Your task to perform on an android device: Go to Amazon Image 0: 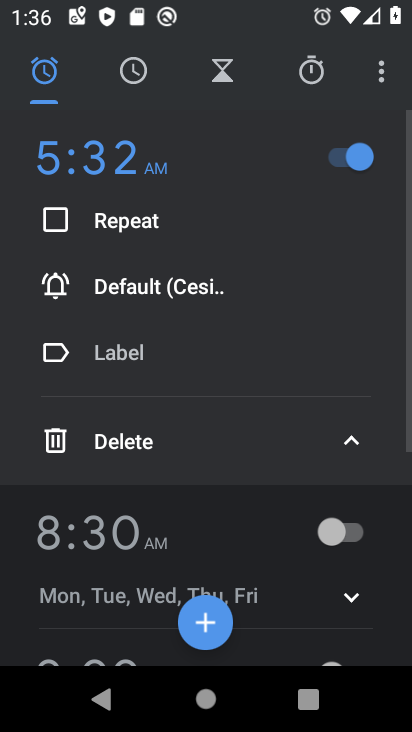
Step 0: press home button
Your task to perform on an android device: Go to Amazon Image 1: 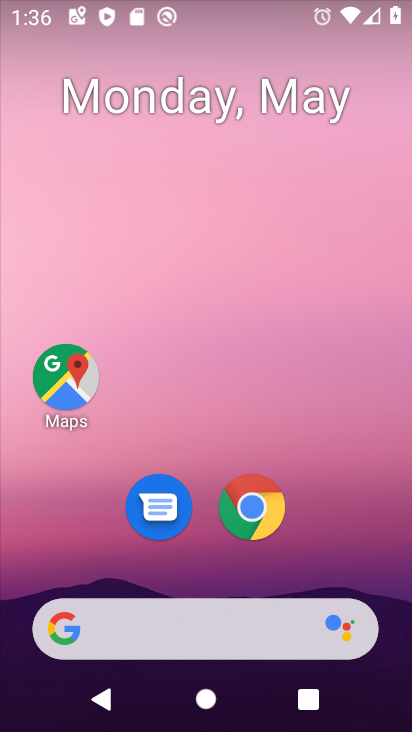
Step 1: click (254, 508)
Your task to perform on an android device: Go to Amazon Image 2: 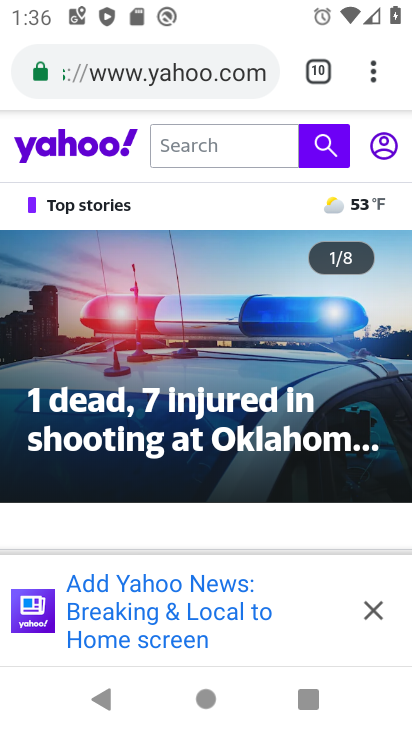
Step 2: click (373, 77)
Your task to perform on an android device: Go to Amazon Image 3: 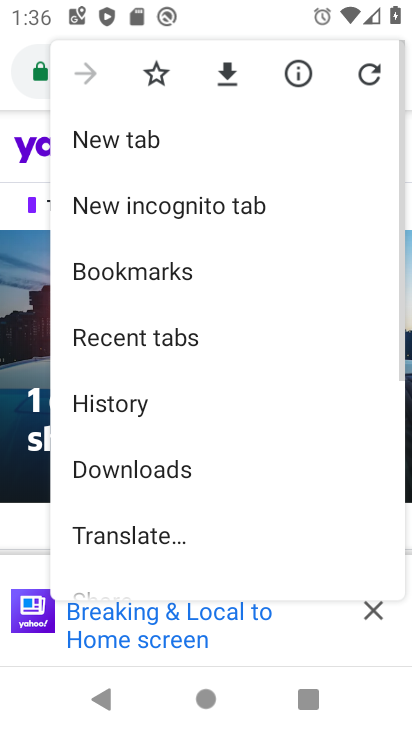
Step 3: click (110, 139)
Your task to perform on an android device: Go to Amazon Image 4: 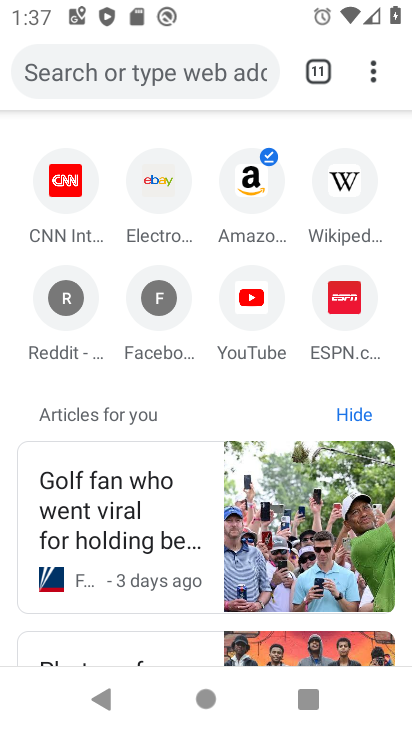
Step 4: click (250, 196)
Your task to perform on an android device: Go to Amazon Image 5: 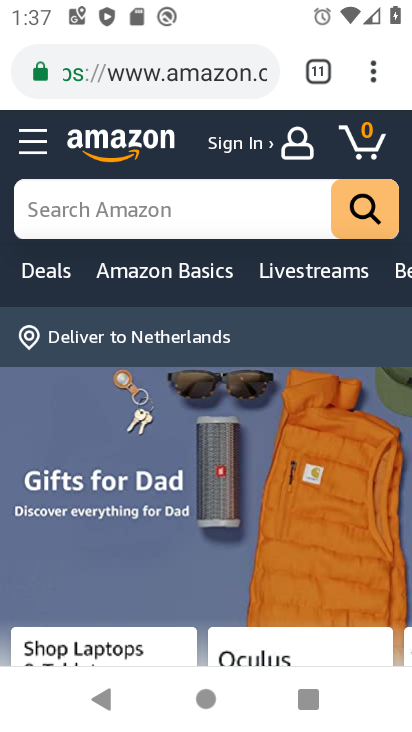
Step 5: task complete